Your task to perform on an android device: see tabs open on other devices in the chrome app Image 0: 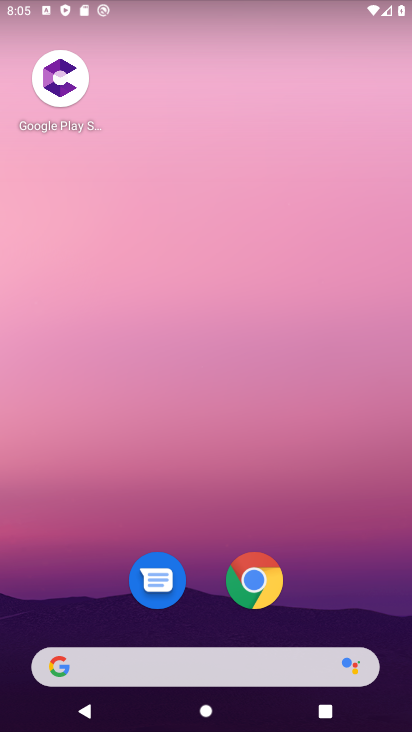
Step 0: click (269, 586)
Your task to perform on an android device: see tabs open on other devices in the chrome app Image 1: 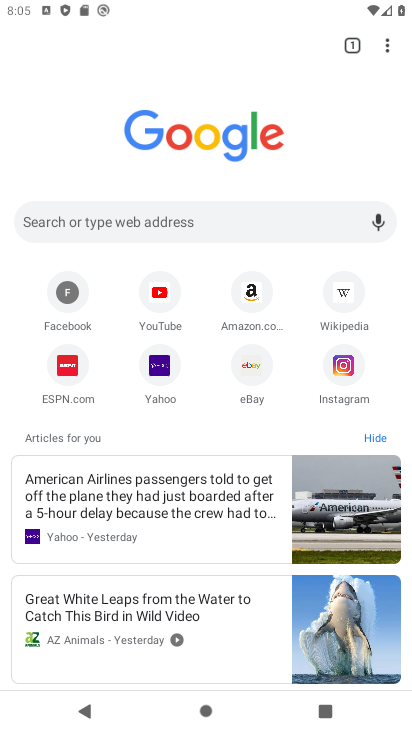
Step 1: click (381, 42)
Your task to perform on an android device: see tabs open on other devices in the chrome app Image 2: 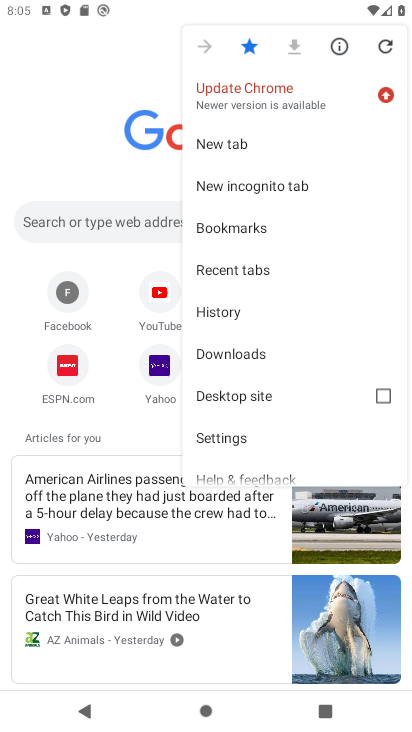
Step 2: click (236, 267)
Your task to perform on an android device: see tabs open on other devices in the chrome app Image 3: 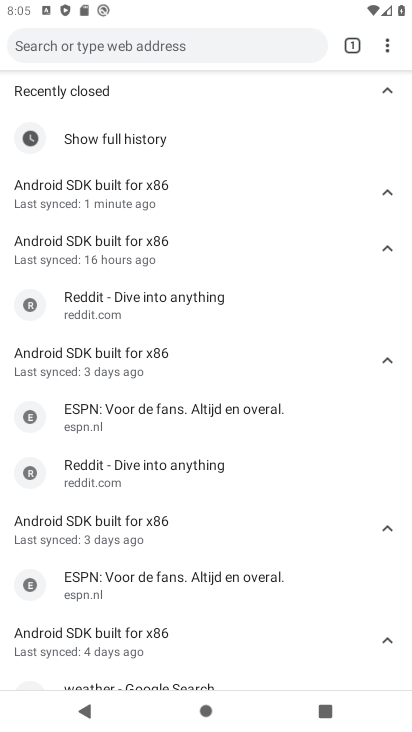
Step 3: task complete